Your task to perform on an android device: turn off picture-in-picture Image 0: 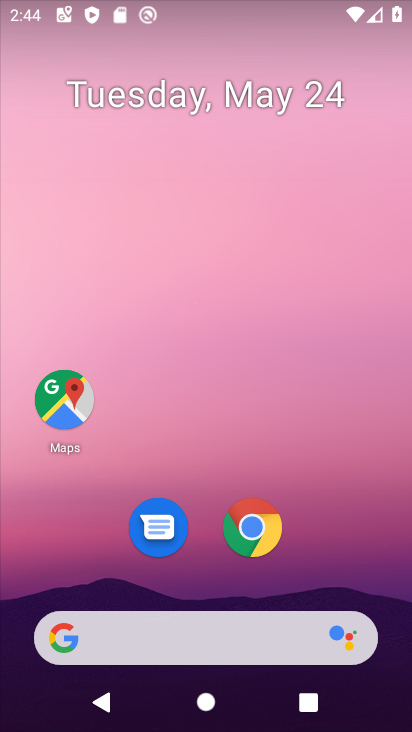
Step 0: drag from (321, 625) to (239, 127)
Your task to perform on an android device: turn off picture-in-picture Image 1: 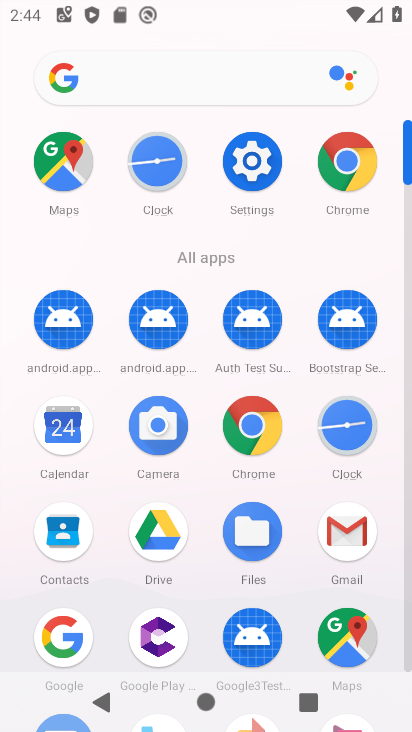
Step 1: click (344, 153)
Your task to perform on an android device: turn off picture-in-picture Image 2: 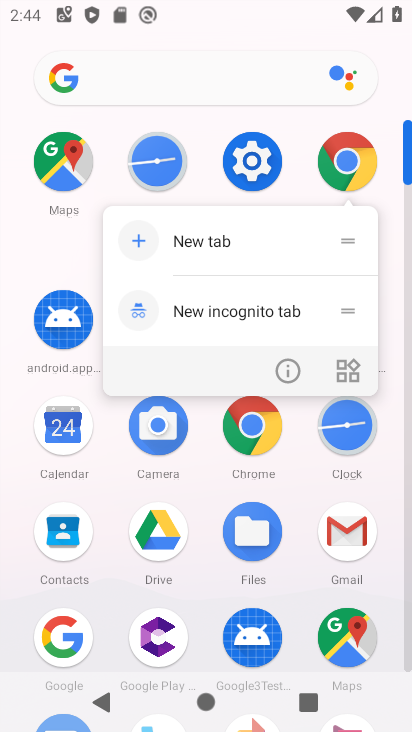
Step 2: click (287, 371)
Your task to perform on an android device: turn off picture-in-picture Image 3: 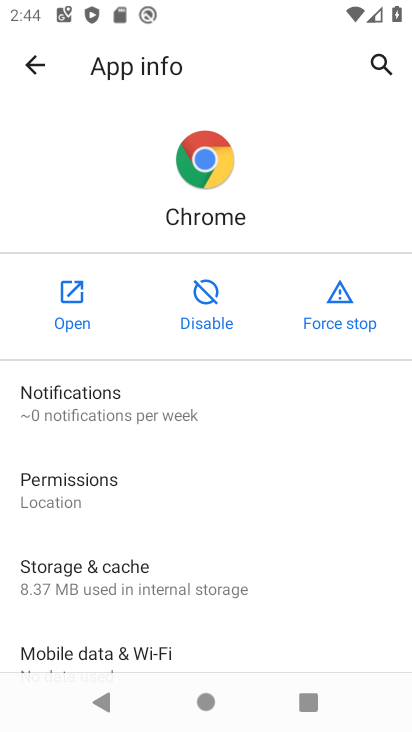
Step 3: drag from (112, 533) to (57, 253)
Your task to perform on an android device: turn off picture-in-picture Image 4: 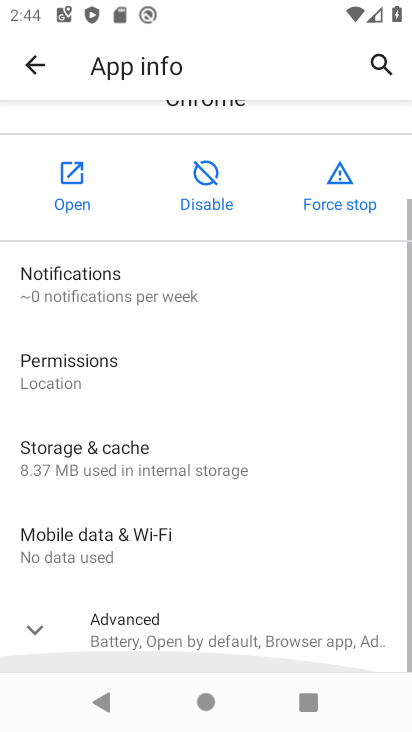
Step 4: drag from (179, 524) to (139, 256)
Your task to perform on an android device: turn off picture-in-picture Image 5: 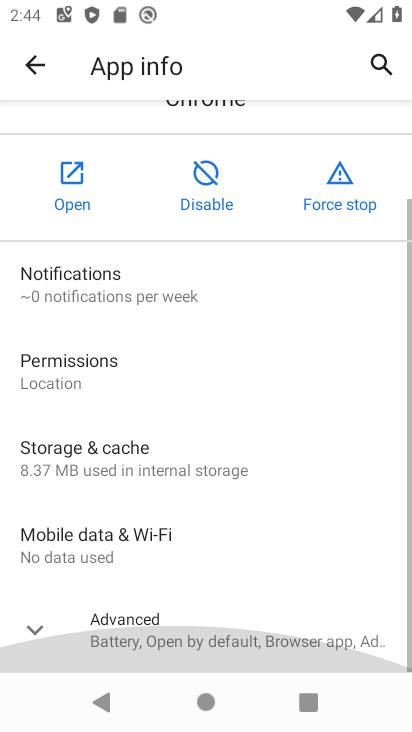
Step 5: drag from (190, 546) to (175, 259)
Your task to perform on an android device: turn off picture-in-picture Image 6: 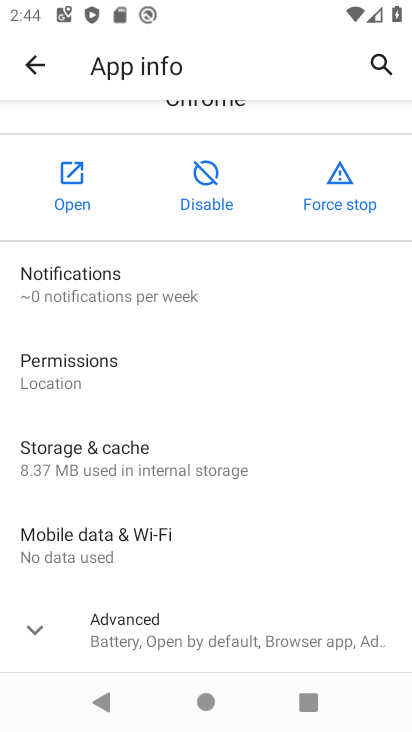
Step 6: click (120, 261)
Your task to perform on an android device: turn off picture-in-picture Image 7: 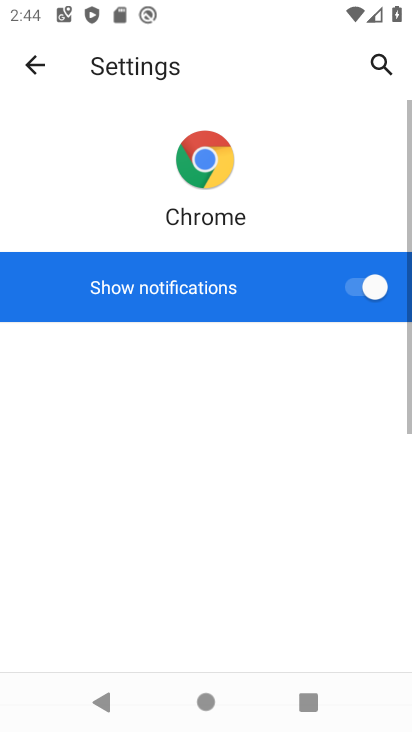
Step 7: click (145, 628)
Your task to perform on an android device: turn off picture-in-picture Image 8: 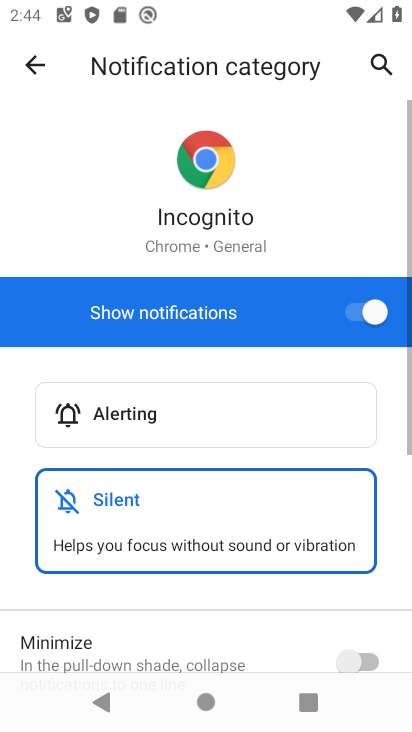
Step 8: click (23, 82)
Your task to perform on an android device: turn off picture-in-picture Image 9: 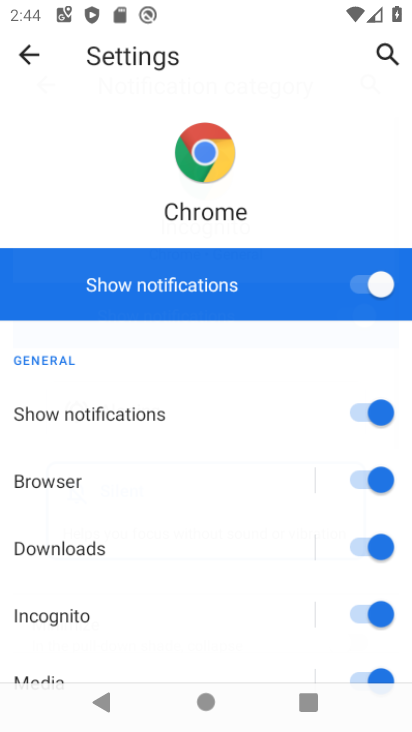
Step 9: click (33, 66)
Your task to perform on an android device: turn off picture-in-picture Image 10: 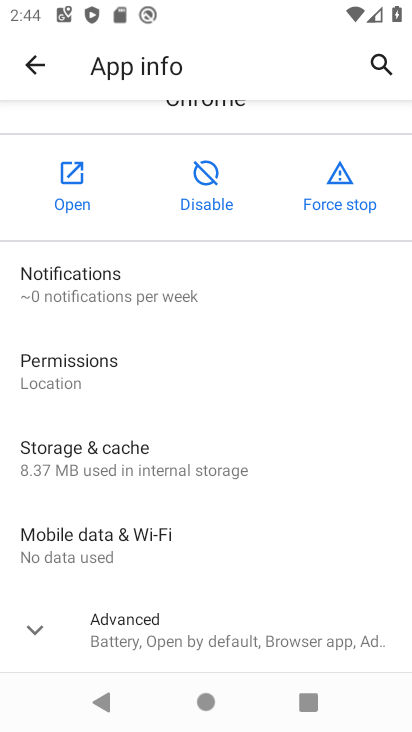
Step 10: click (119, 630)
Your task to perform on an android device: turn off picture-in-picture Image 11: 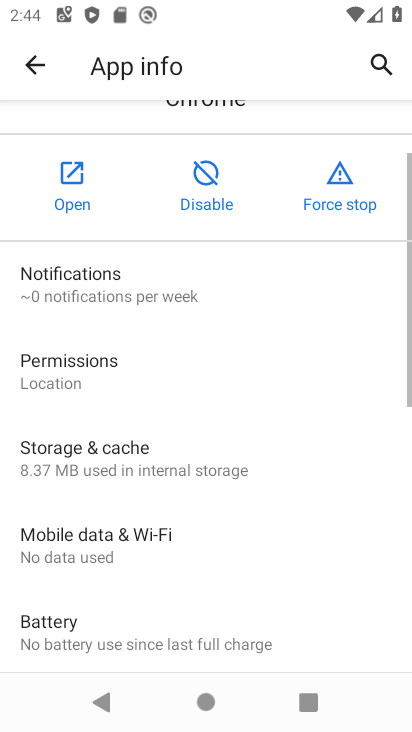
Step 11: drag from (116, 575) to (112, 318)
Your task to perform on an android device: turn off picture-in-picture Image 12: 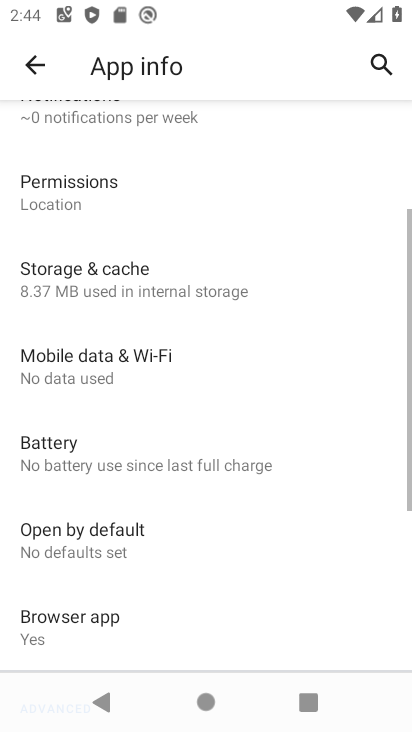
Step 12: drag from (233, 577) to (187, 240)
Your task to perform on an android device: turn off picture-in-picture Image 13: 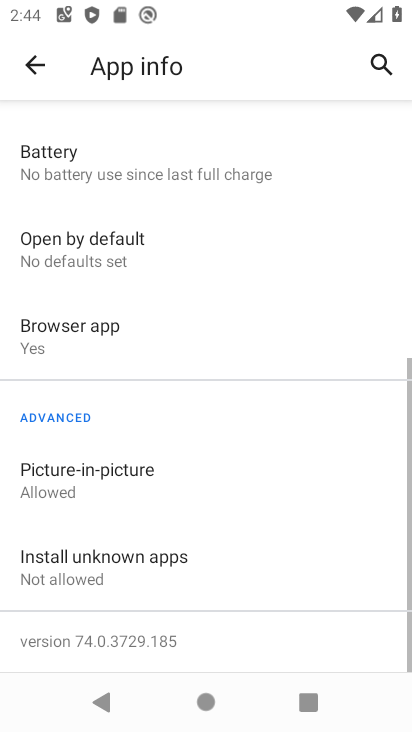
Step 13: drag from (194, 561) to (138, 170)
Your task to perform on an android device: turn off picture-in-picture Image 14: 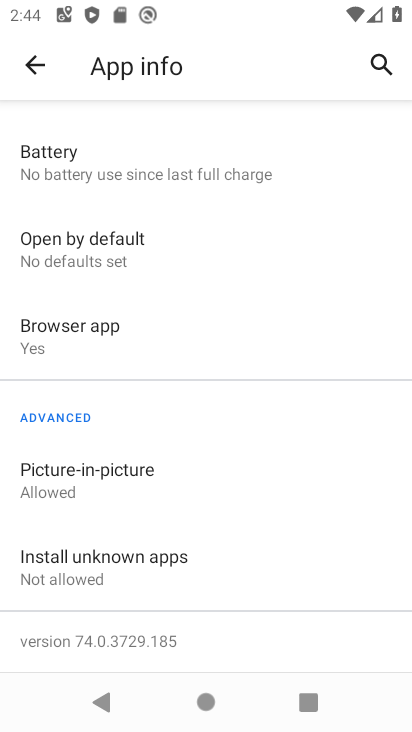
Step 14: click (41, 468)
Your task to perform on an android device: turn off picture-in-picture Image 15: 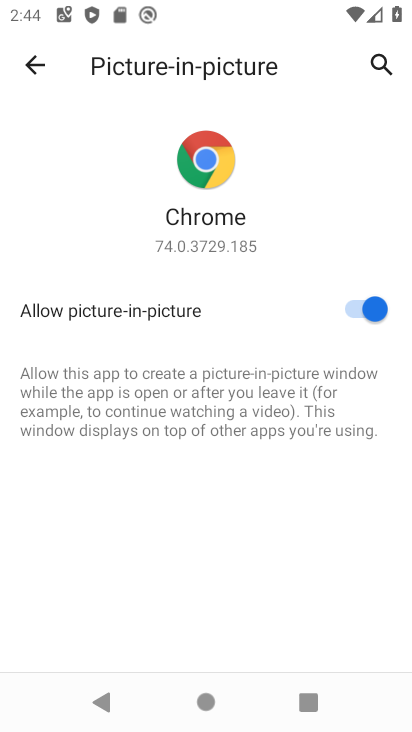
Step 15: click (362, 308)
Your task to perform on an android device: turn off picture-in-picture Image 16: 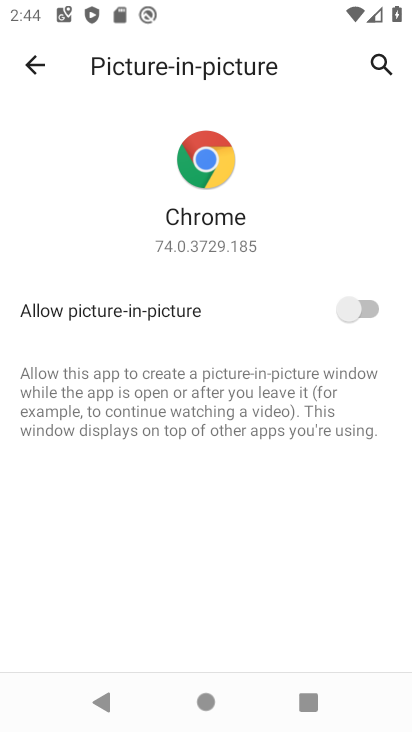
Step 16: task complete